Your task to perform on an android device: Is it going to rain tomorrow? Image 0: 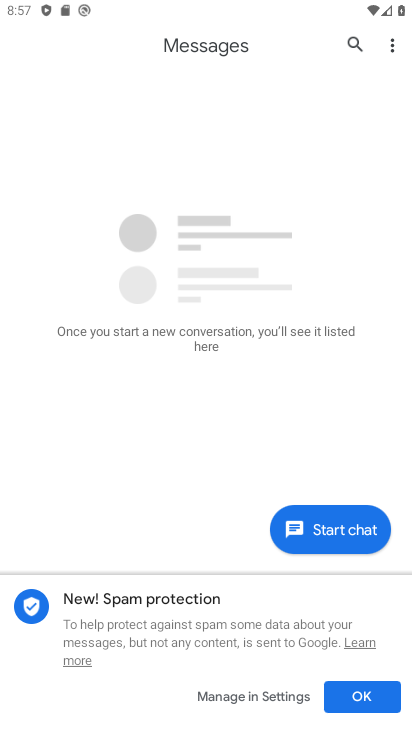
Step 0: press home button
Your task to perform on an android device: Is it going to rain tomorrow? Image 1: 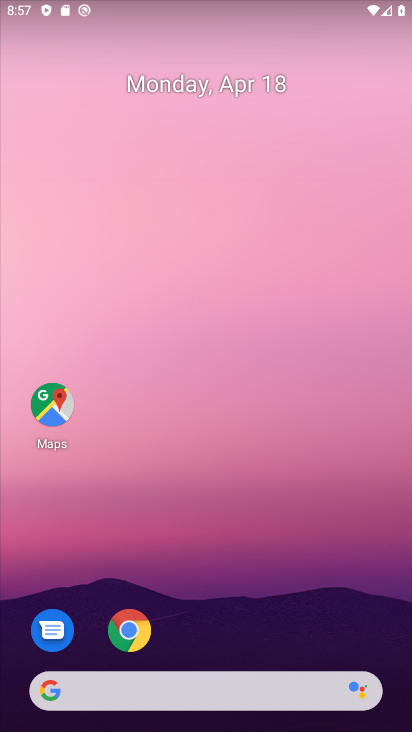
Step 1: drag from (286, 583) to (320, 106)
Your task to perform on an android device: Is it going to rain tomorrow? Image 2: 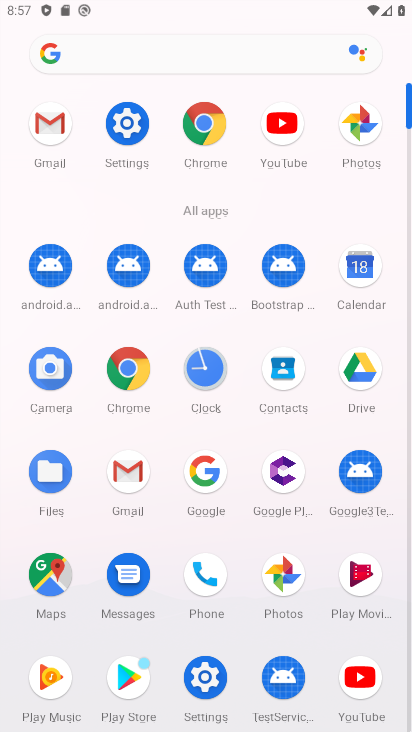
Step 2: drag from (232, 525) to (280, 236)
Your task to perform on an android device: Is it going to rain tomorrow? Image 3: 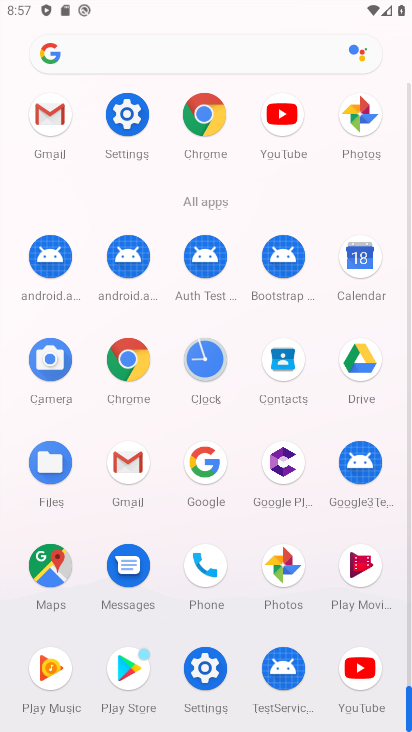
Step 3: press back button
Your task to perform on an android device: Is it going to rain tomorrow? Image 4: 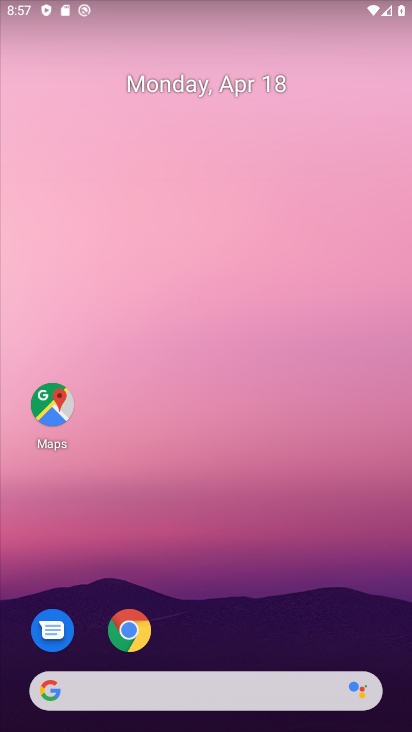
Step 4: drag from (67, 284) to (411, 296)
Your task to perform on an android device: Is it going to rain tomorrow? Image 5: 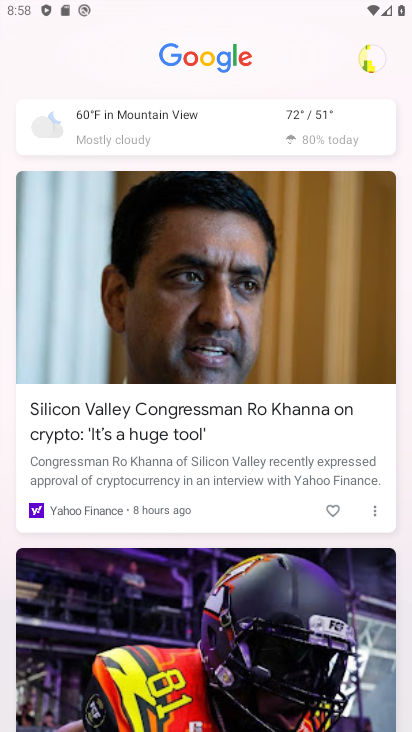
Step 5: click (308, 115)
Your task to perform on an android device: Is it going to rain tomorrow? Image 6: 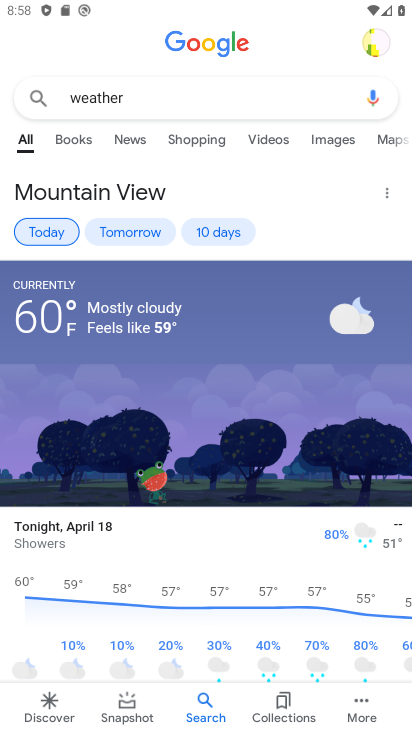
Step 6: task complete